Your task to perform on an android device: View the shopping cart on newegg. Add usb-c to usb-a to the cart on newegg Image 0: 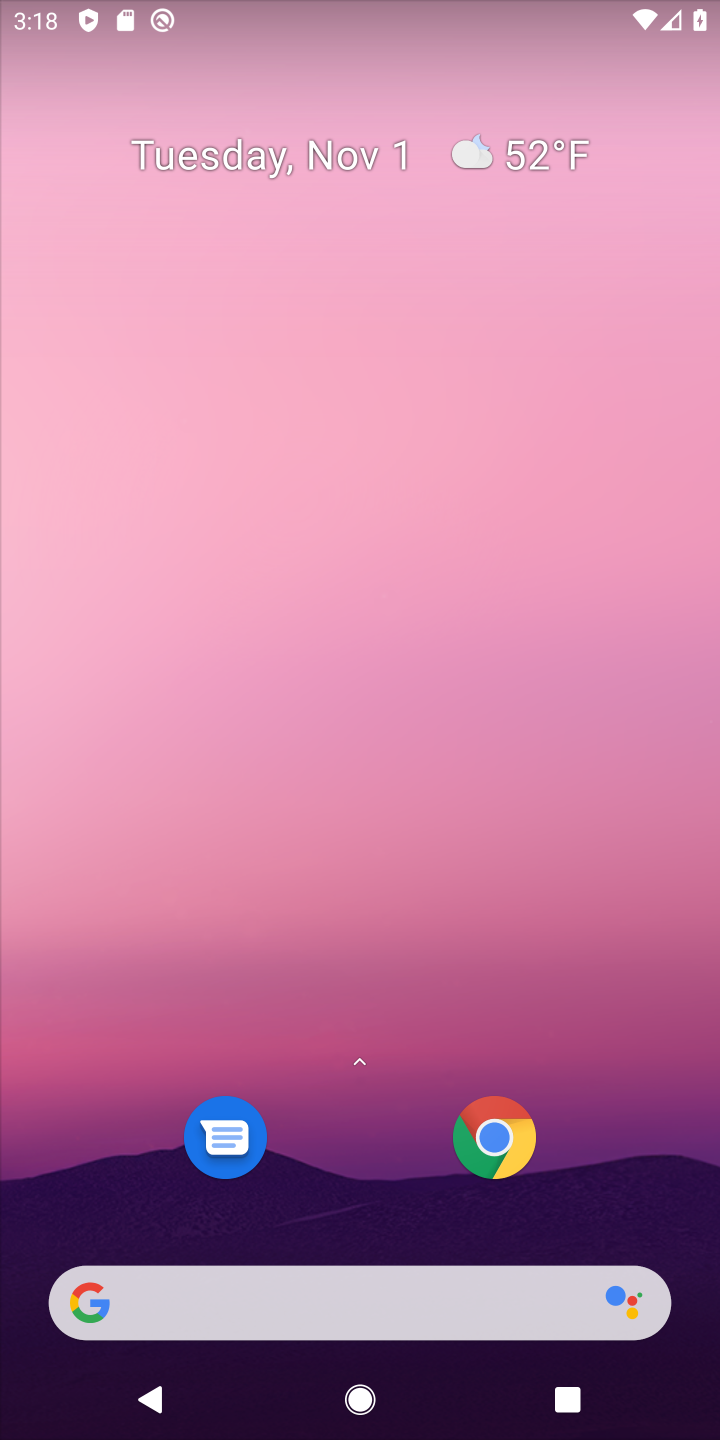
Step 0: click (395, 1288)
Your task to perform on an android device: View the shopping cart on newegg. Add usb-c to usb-a to the cart on newegg Image 1: 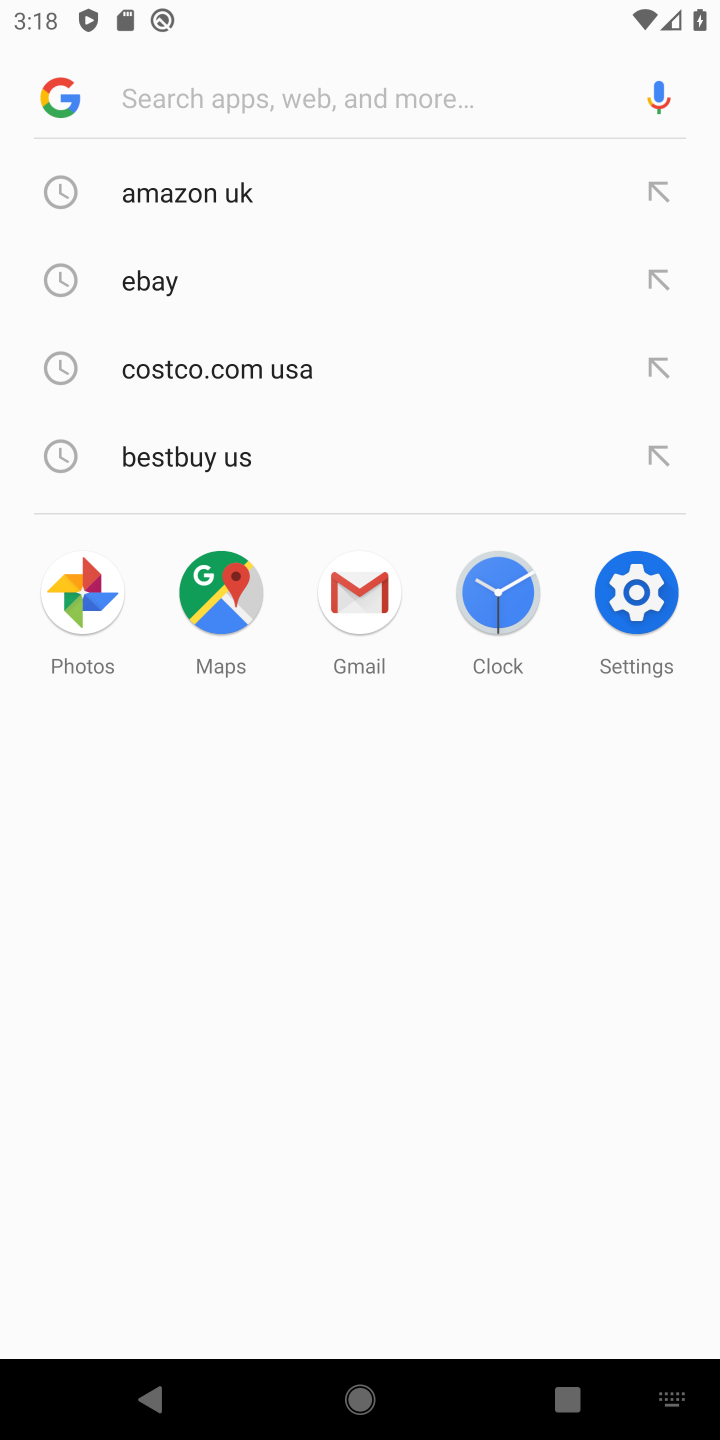
Step 1: type "newegg"
Your task to perform on an android device: View the shopping cart on newegg. Add usb-c to usb-a to the cart on newegg Image 2: 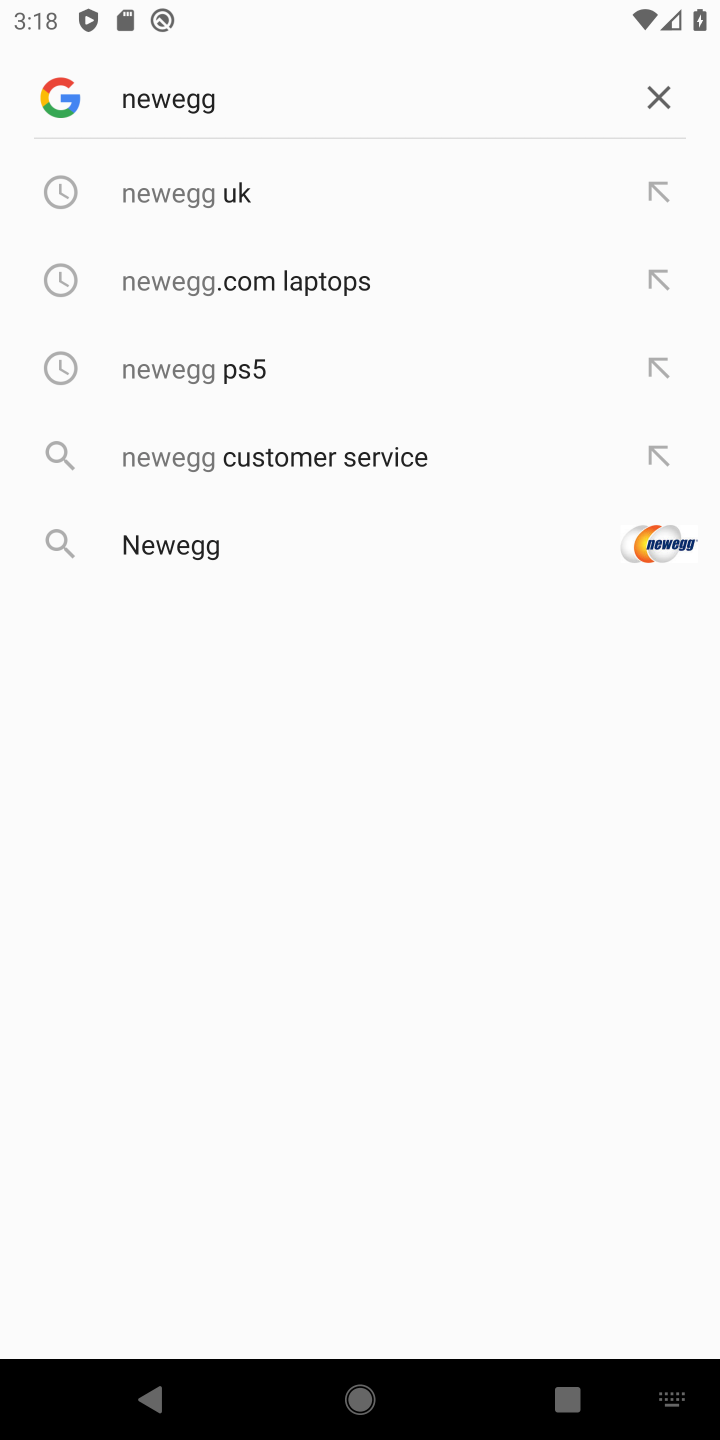
Step 2: click (384, 192)
Your task to perform on an android device: View the shopping cart on newegg. Add usb-c to usb-a to the cart on newegg Image 3: 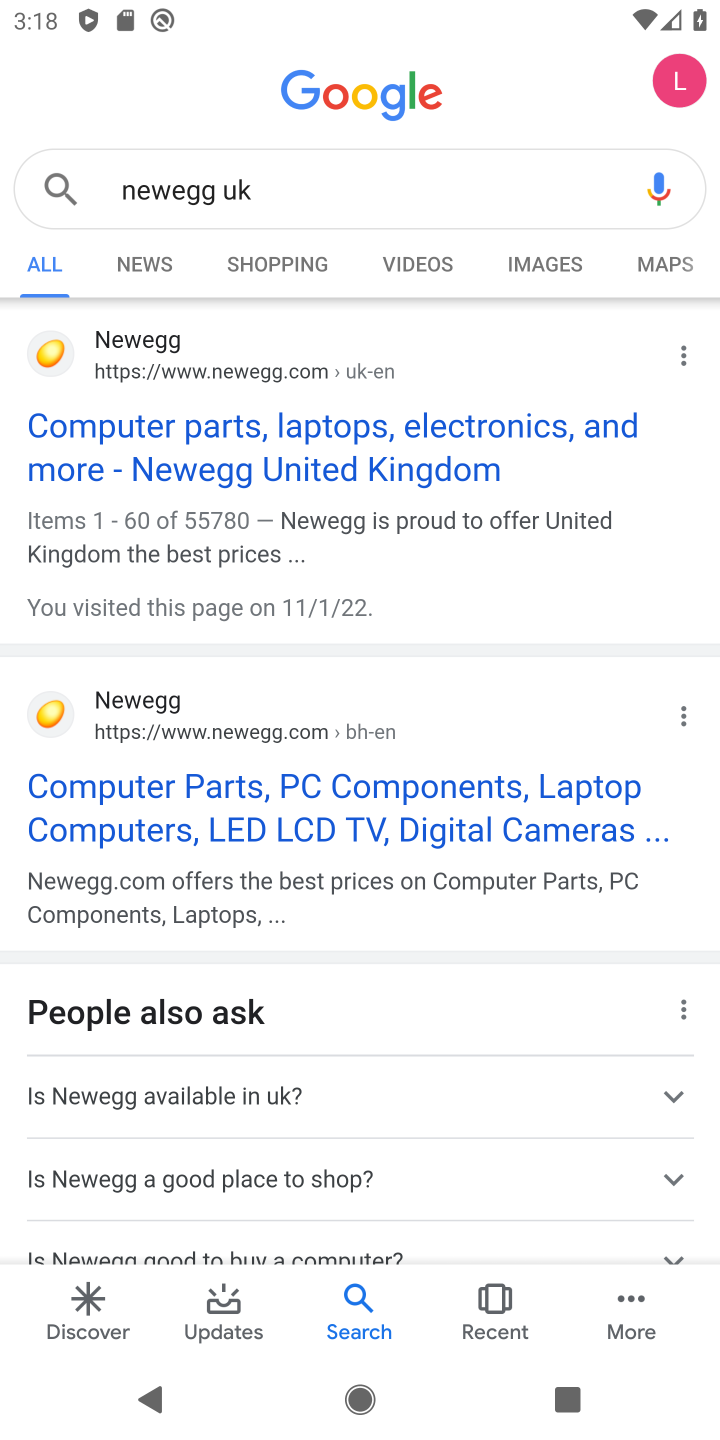
Step 3: click (433, 426)
Your task to perform on an android device: View the shopping cart on newegg. Add usb-c to usb-a to the cart on newegg Image 4: 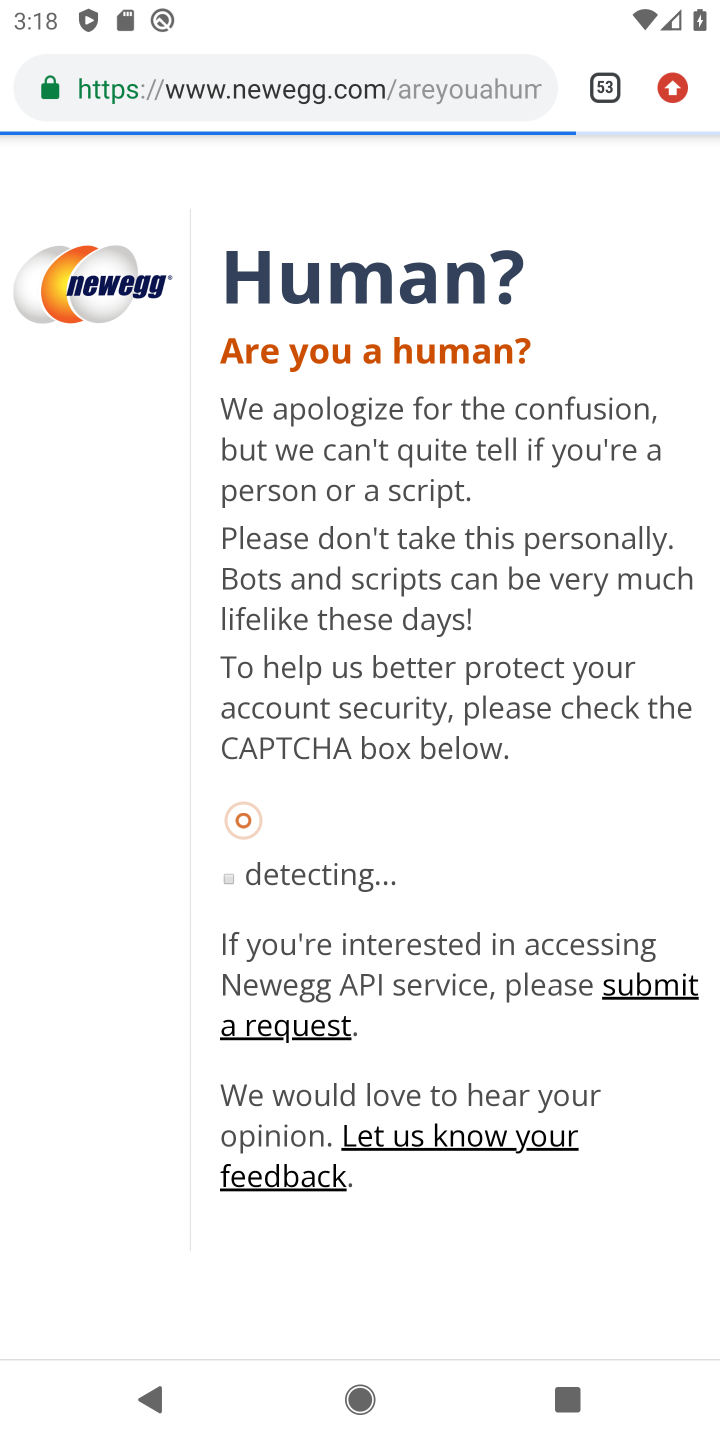
Step 4: task complete